Your task to perform on an android device: turn on bluetooth scan Image 0: 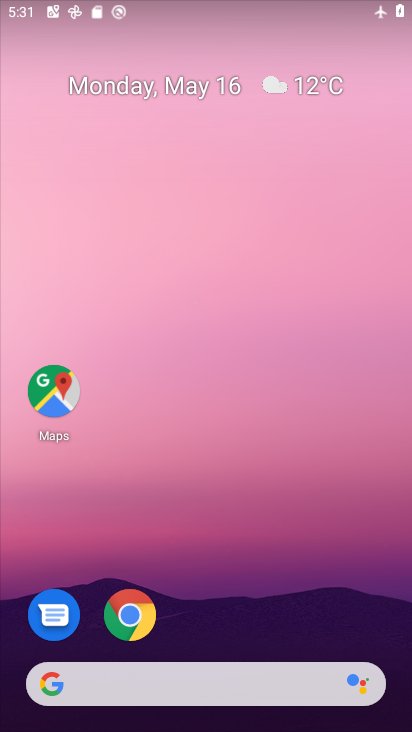
Step 0: drag from (190, 633) to (308, 156)
Your task to perform on an android device: turn on bluetooth scan Image 1: 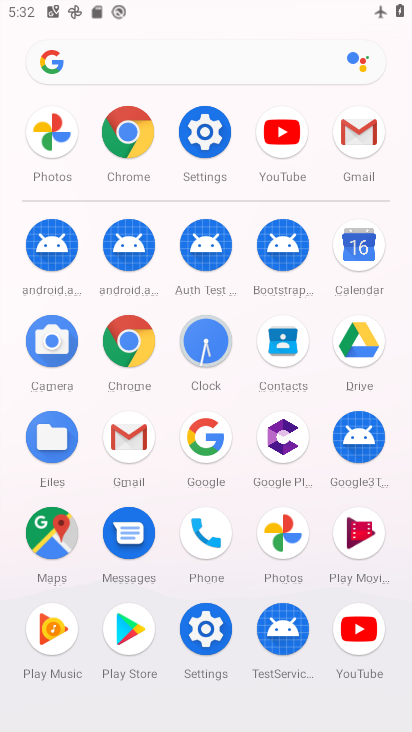
Step 1: click (206, 149)
Your task to perform on an android device: turn on bluetooth scan Image 2: 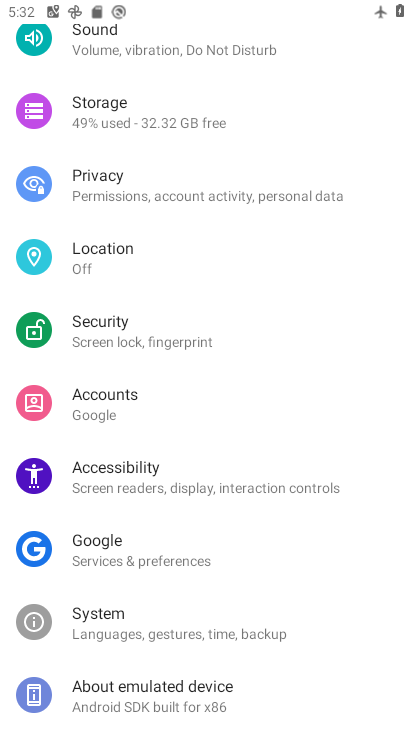
Step 2: click (117, 275)
Your task to perform on an android device: turn on bluetooth scan Image 3: 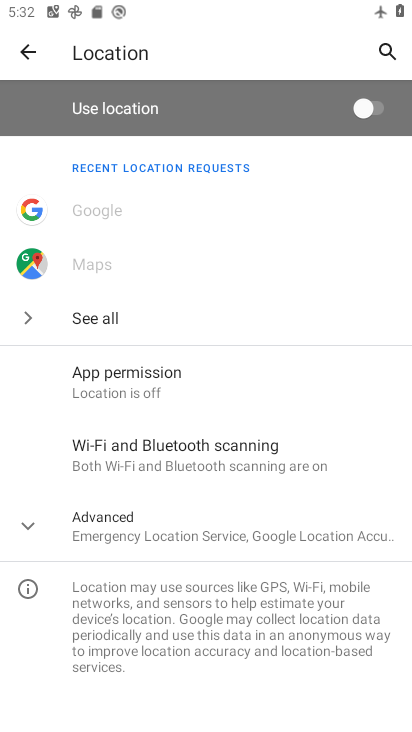
Step 3: click (172, 531)
Your task to perform on an android device: turn on bluetooth scan Image 4: 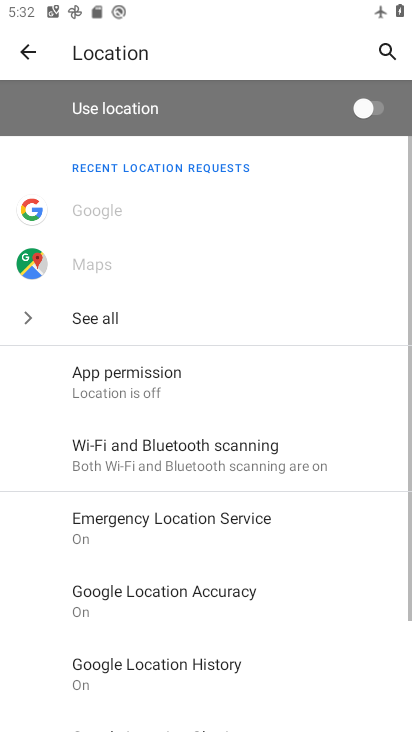
Step 4: click (155, 475)
Your task to perform on an android device: turn on bluetooth scan Image 5: 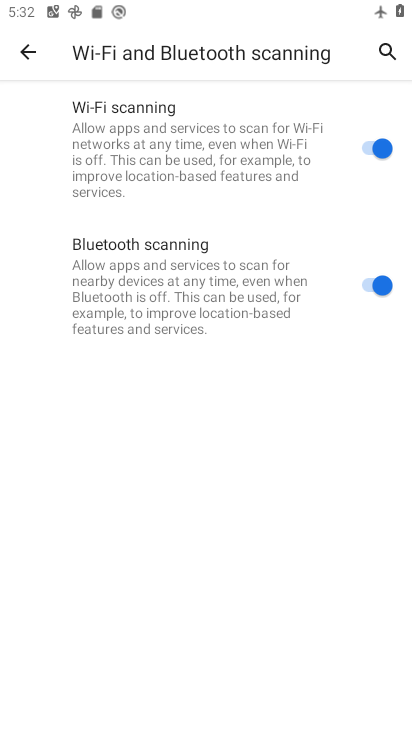
Step 5: task complete